Your task to perform on an android device: Show me the alarms in the clock app Image 0: 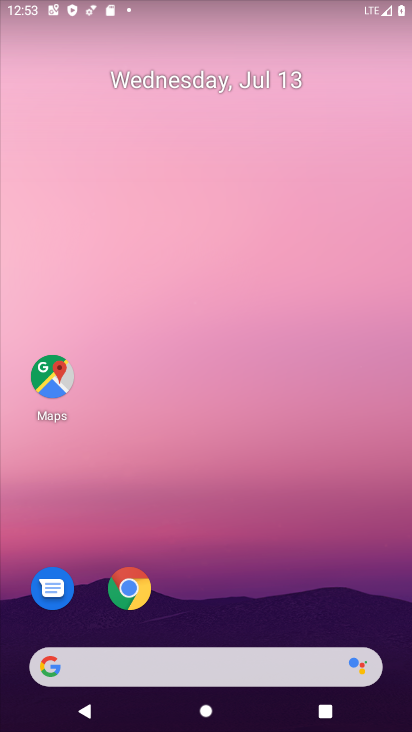
Step 0: drag from (395, 692) to (324, 123)
Your task to perform on an android device: Show me the alarms in the clock app Image 1: 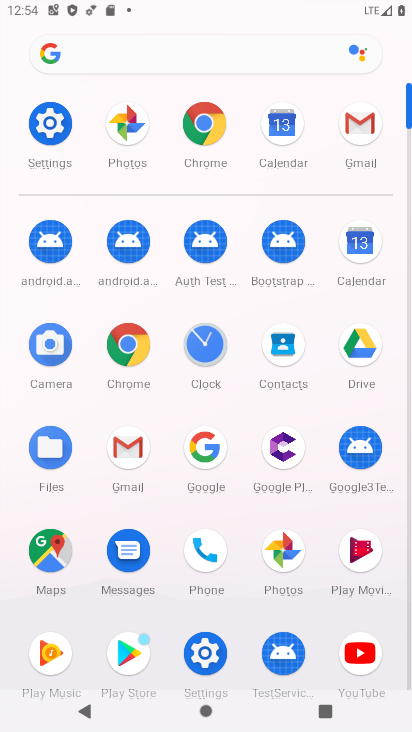
Step 1: click (207, 348)
Your task to perform on an android device: Show me the alarms in the clock app Image 2: 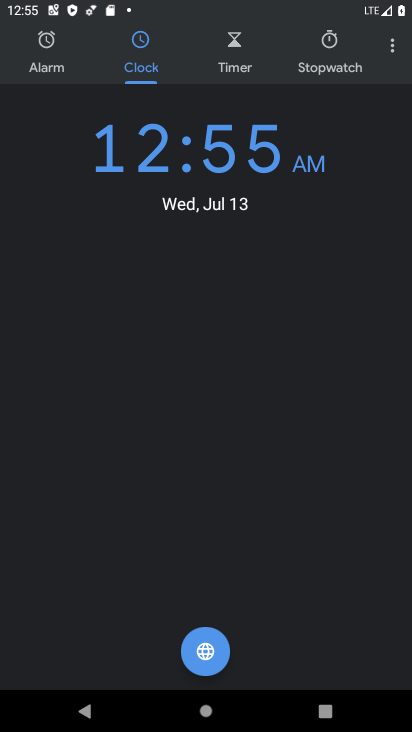
Step 2: click (41, 54)
Your task to perform on an android device: Show me the alarms in the clock app Image 3: 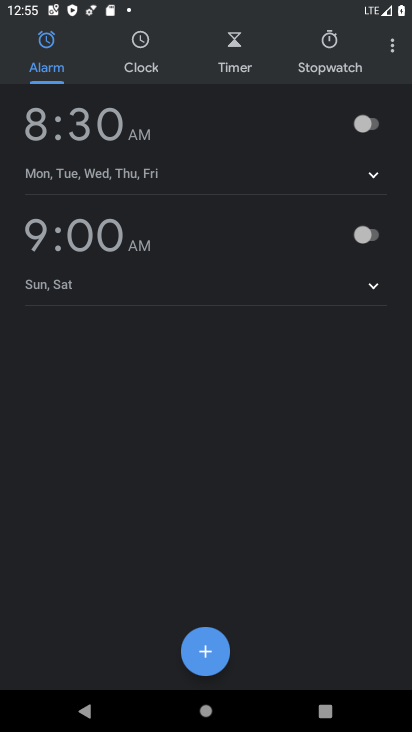
Step 3: task complete